Your task to perform on an android device: Open the stopwatch Image 0: 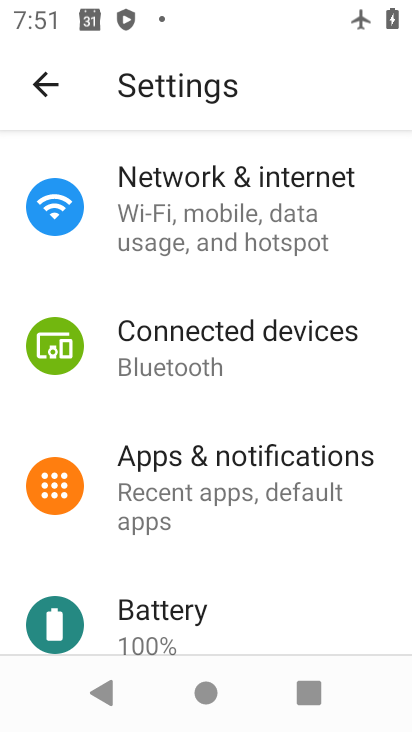
Step 0: press home button
Your task to perform on an android device: Open the stopwatch Image 1: 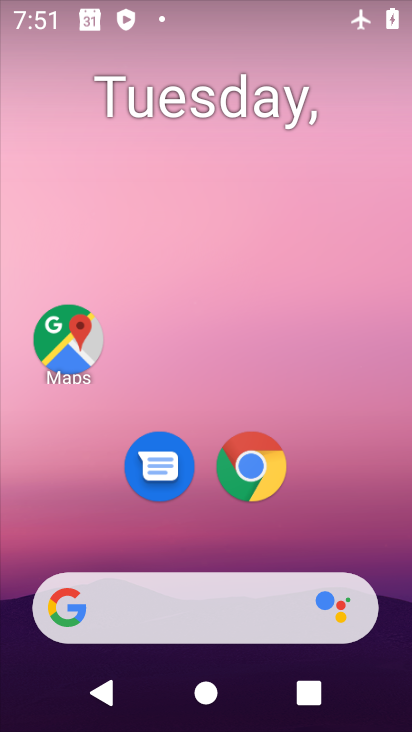
Step 1: drag from (20, 609) to (305, 79)
Your task to perform on an android device: Open the stopwatch Image 2: 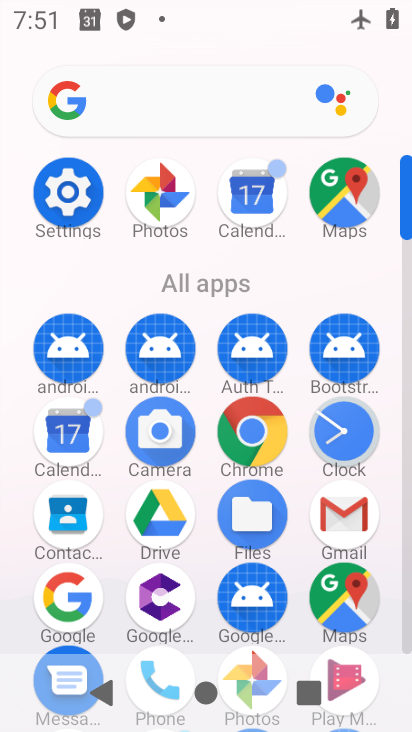
Step 2: click (369, 441)
Your task to perform on an android device: Open the stopwatch Image 3: 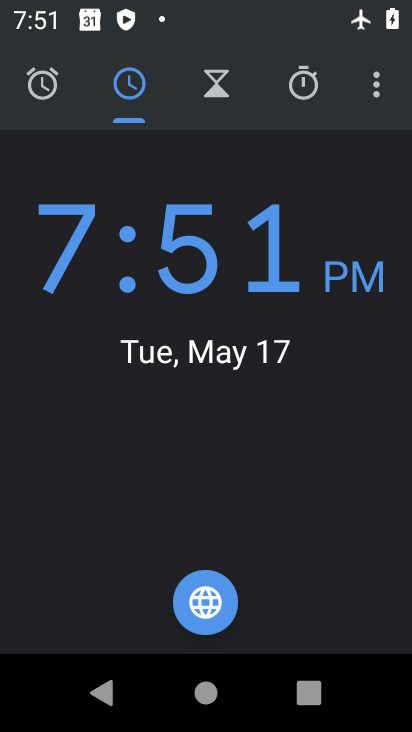
Step 3: click (296, 91)
Your task to perform on an android device: Open the stopwatch Image 4: 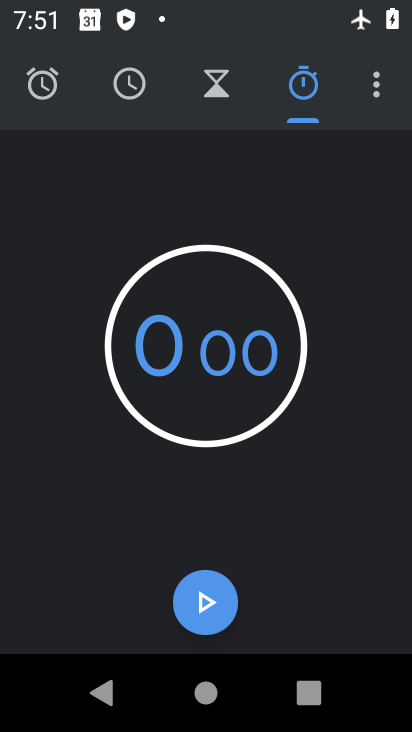
Step 4: click (209, 578)
Your task to perform on an android device: Open the stopwatch Image 5: 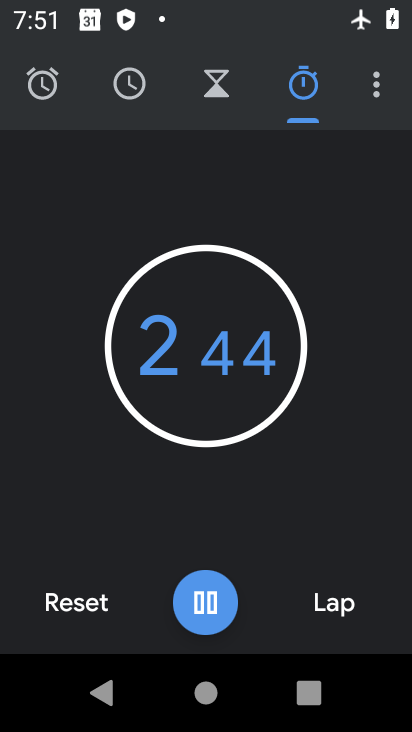
Step 5: task complete